Your task to perform on an android device: Open Google Chrome and open the bookmarks view Image 0: 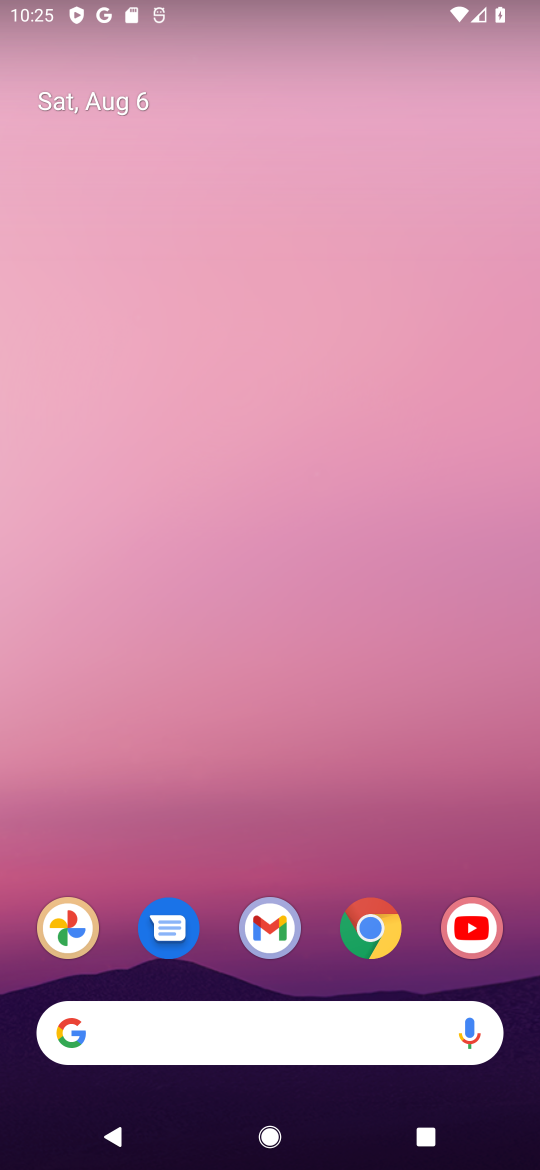
Step 0: click (371, 936)
Your task to perform on an android device: Open Google Chrome and open the bookmarks view Image 1: 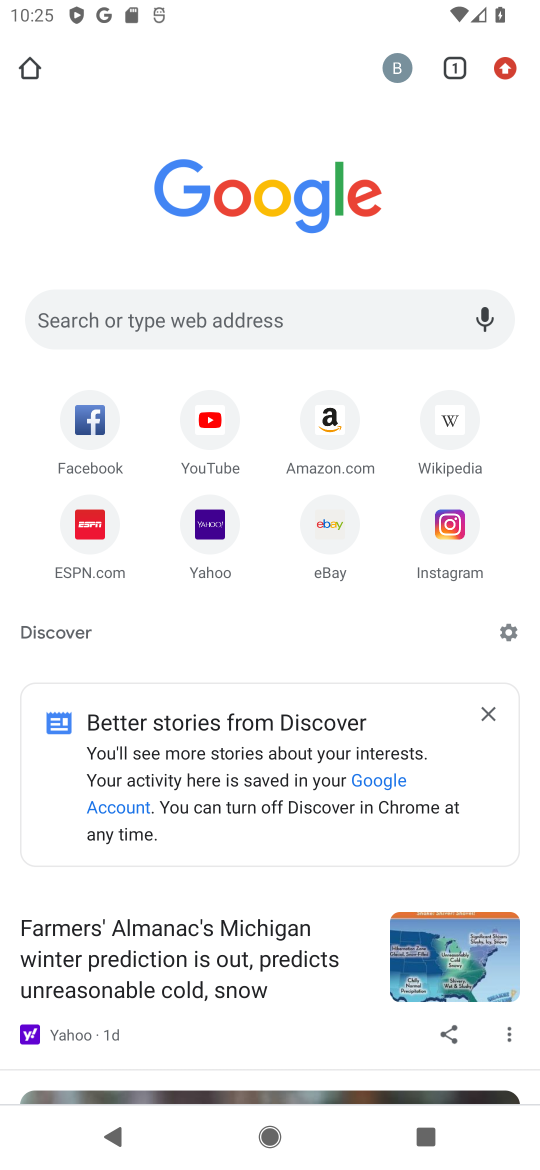
Step 1: click (503, 64)
Your task to perform on an android device: Open Google Chrome and open the bookmarks view Image 2: 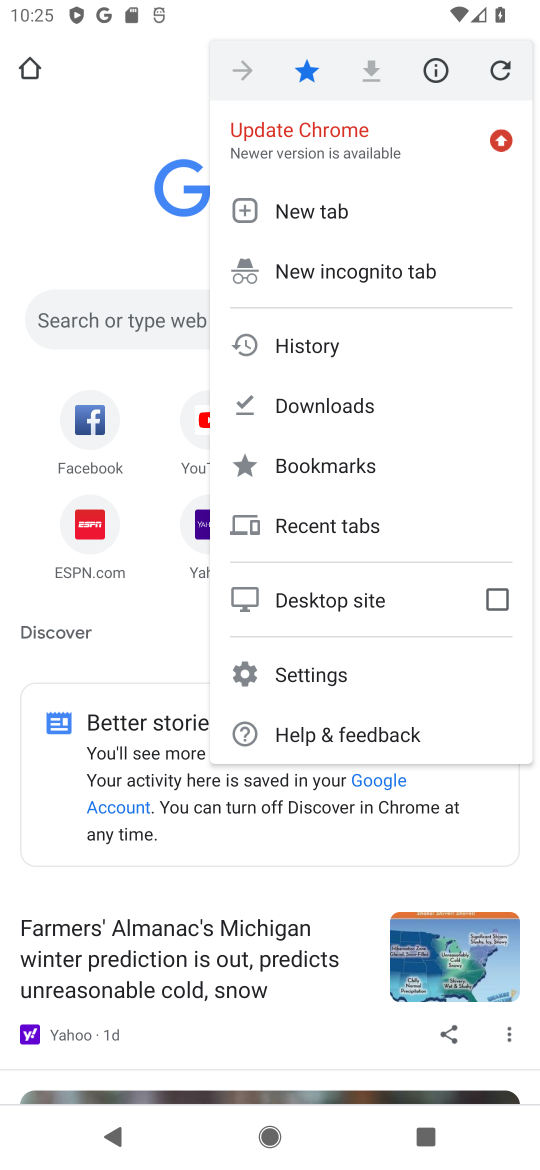
Step 2: click (294, 464)
Your task to perform on an android device: Open Google Chrome and open the bookmarks view Image 3: 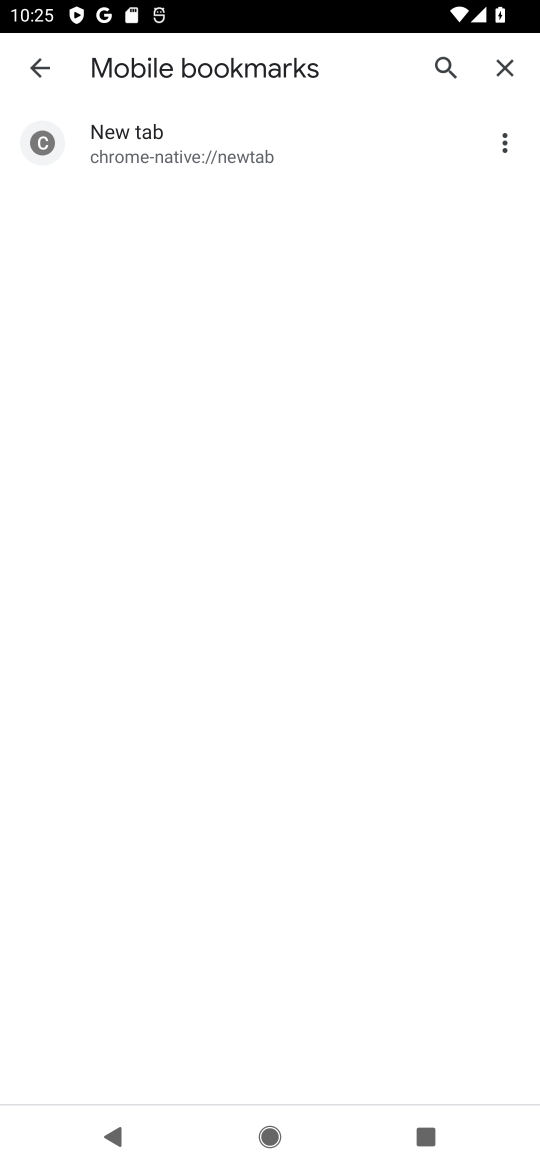
Step 3: click (48, 64)
Your task to perform on an android device: Open Google Chrome and open the bookmarks view Image 4: 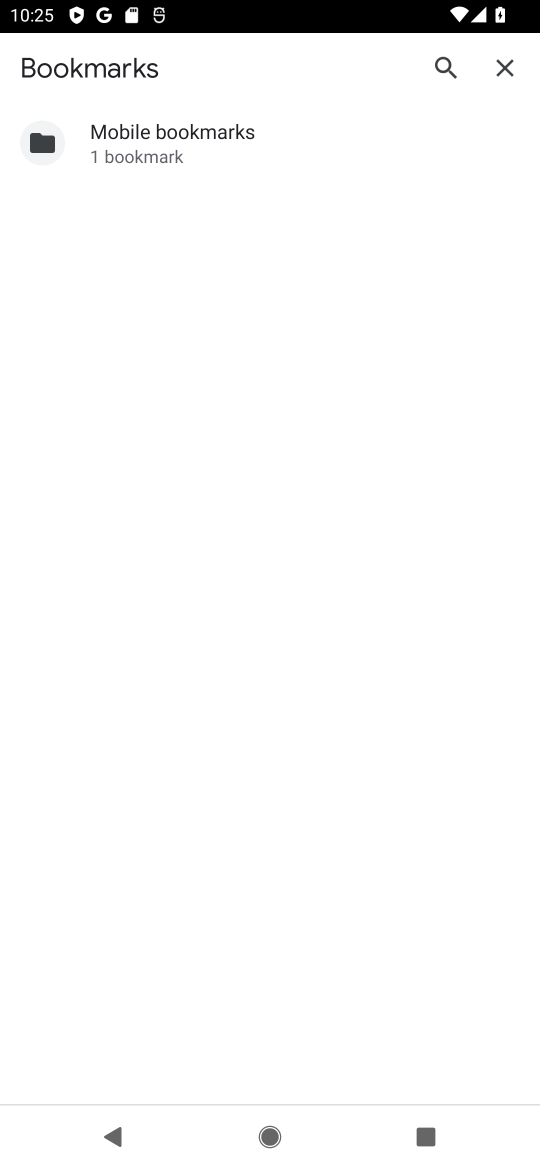
Step 4: click (48, 64)
Your task to perform on an android device: Open Google Chrome and open the bookmarks view Image 5: 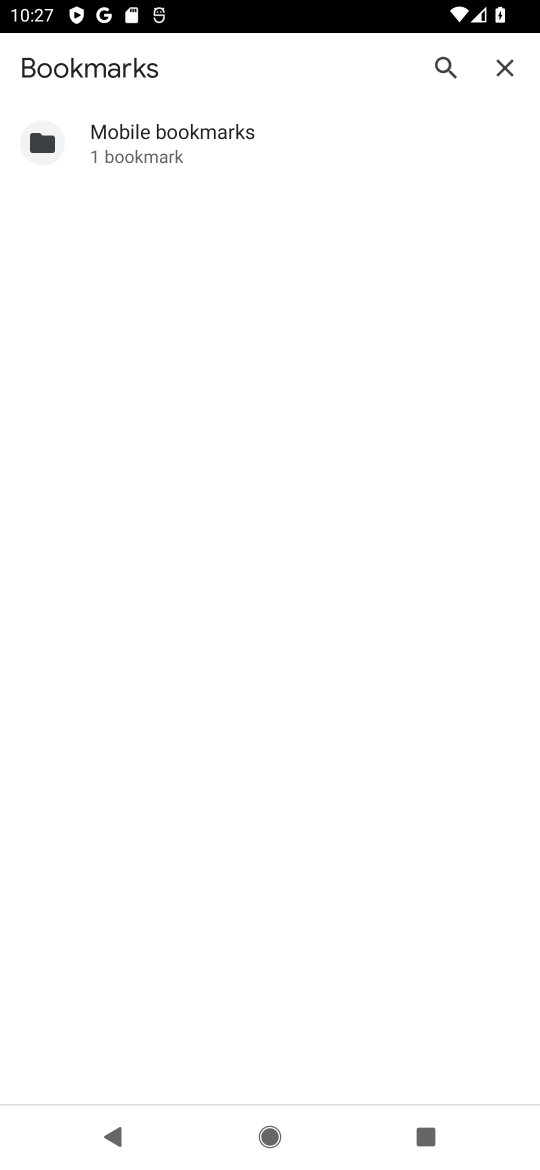
Step 5: task complete